Your task to perform on an android device: Go to Android settings Image 0: 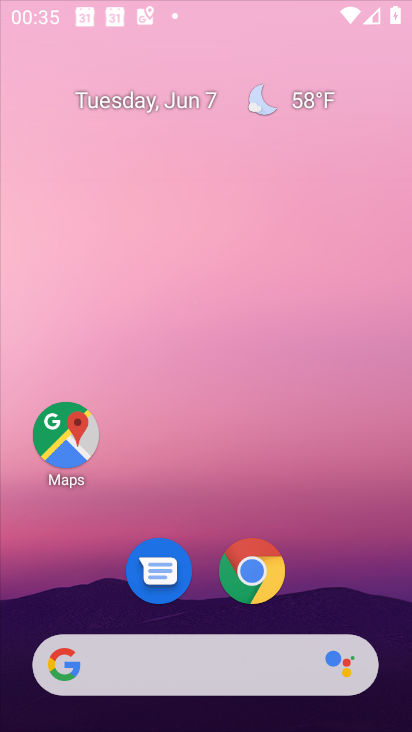
Step 0: drag from (332, 592) to (332, 161)
Your task to perform on an android device: Go to Android settings Image 1: 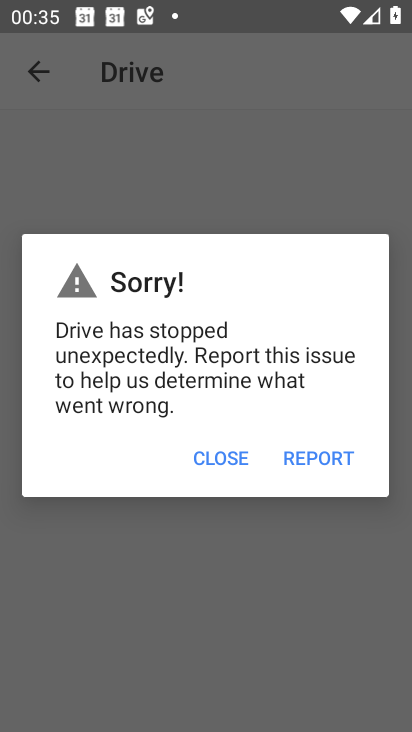
Step 1: press home button
Your task to perform on an android device: Go to Android settings Image 2: 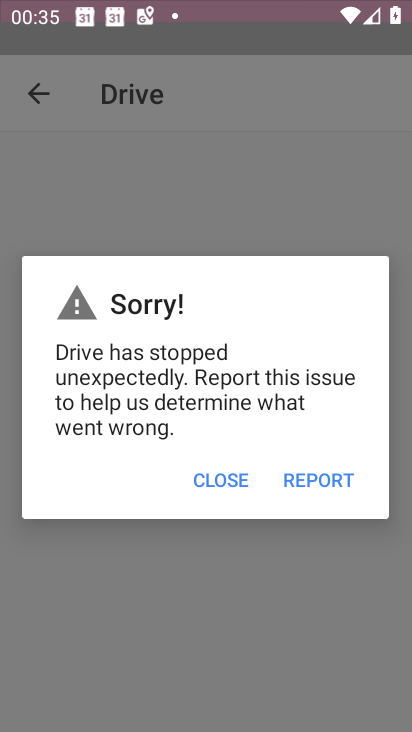
Step 2: drag from (315, 626) to (289, 258)
Your task to perform on an android device: Go to Android settings Image 3: 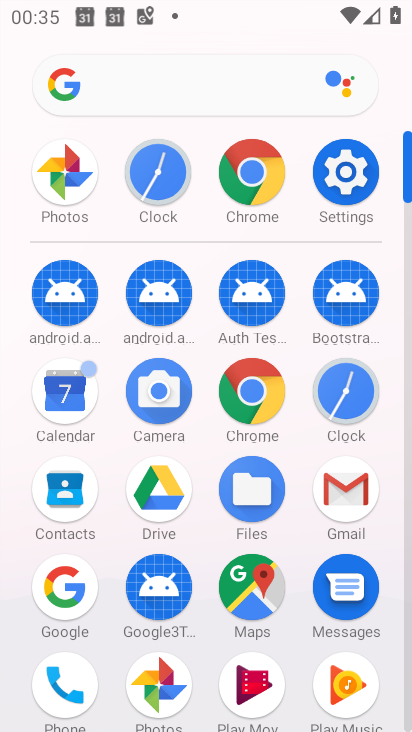
Step 3: click (324, 175)
Your task to perform on an android device: Go to Android settings Image 4: 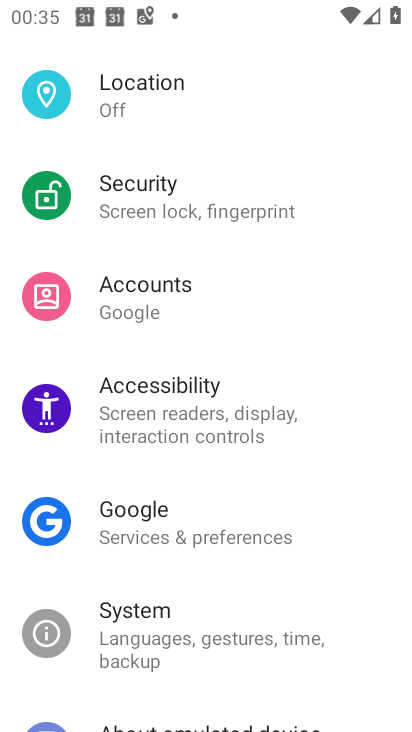
Step 4: drag from (315, 677) to (238, 262)
Your task to perform on an android device: Go to Android settings Image 5: 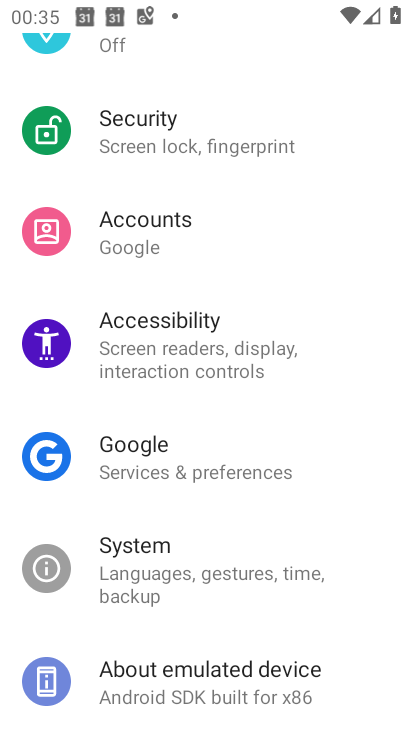
Step 5: click (238, 669)
Your task to perform on an android device: Go to Android settings Image 6: 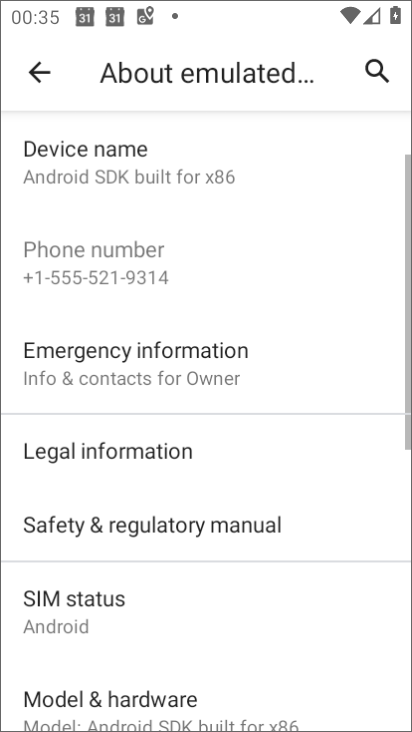
Step 6: drag from (268, 600) to (224, 230)
Your task to perform on an android device: Go to Android settings Image 7: 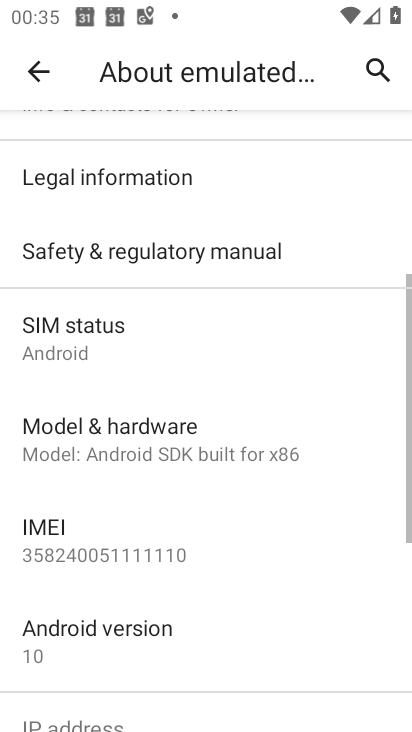
Step 7: click (145, 670)
Your task to perform on an android device: Go to Android settings Image 8: 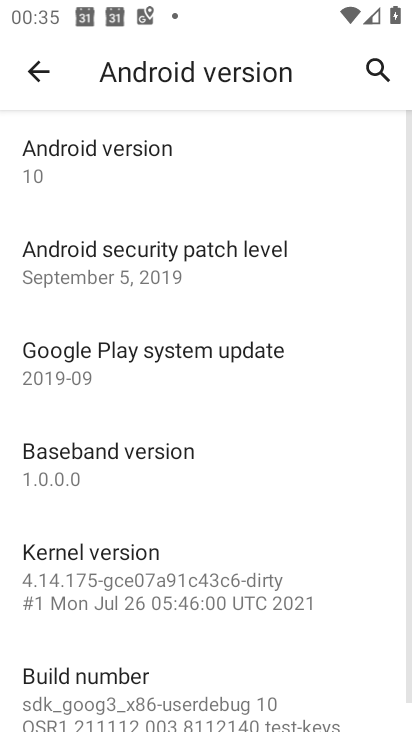
Step 8: task complete